Your task to perform on an android device: Open the phone app and click the voicemail tab. Image 0: 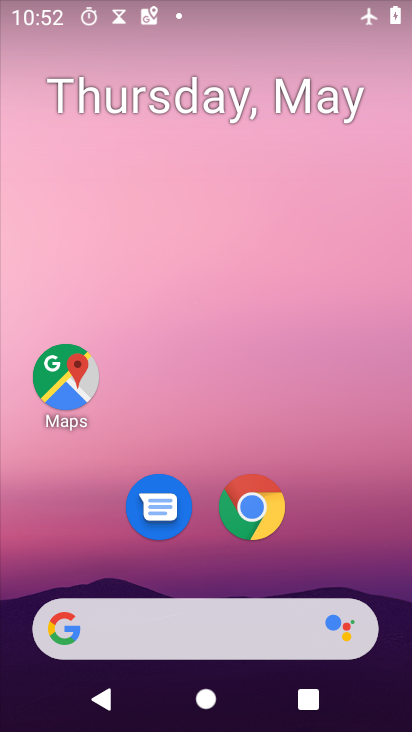
Step 0: drag from (350, 524) to (243, 46)
Your task to perform on an android device: Open the phone app and click the voicemail tab. Image 1: 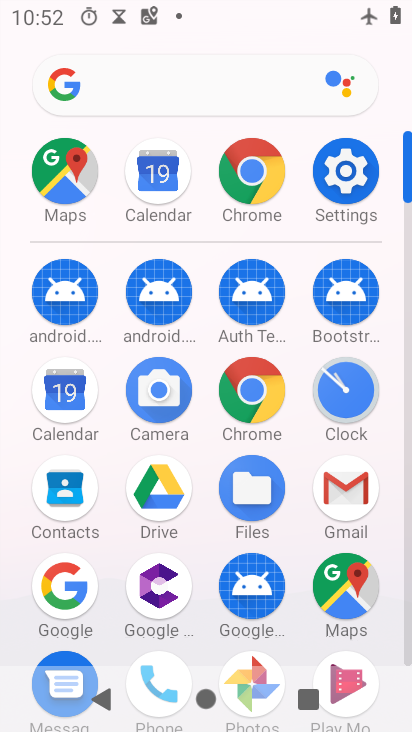
Step 1: drag from (4, 531) to (12, 197)
Your task to perform on an android device: Open the phone app and click the voicemail tab. Image 2: 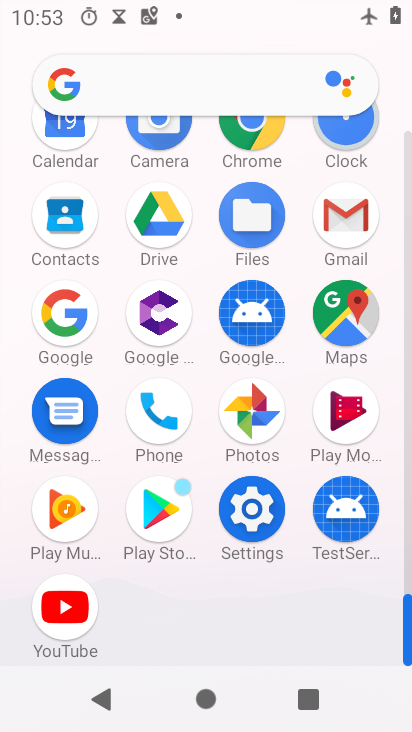
Step 2: click (152, 418)
Your task to perform on an android device: Open the phone app and click the voicemail tab. Image 3: 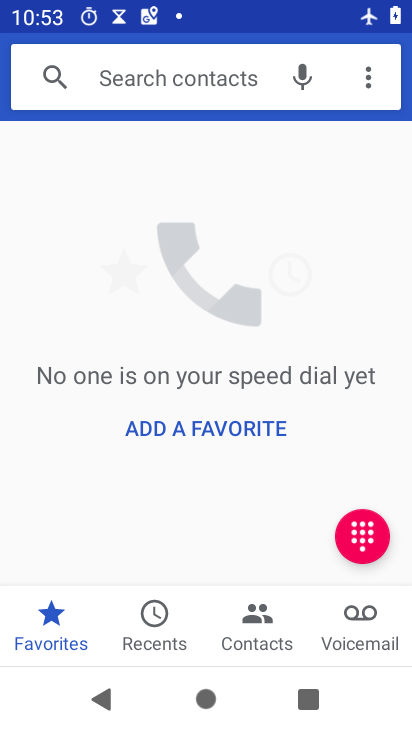
Step 3: click (349, 634)
Your task to perform on an android device: Open the phone app and click the voicemail tab. Image 4: 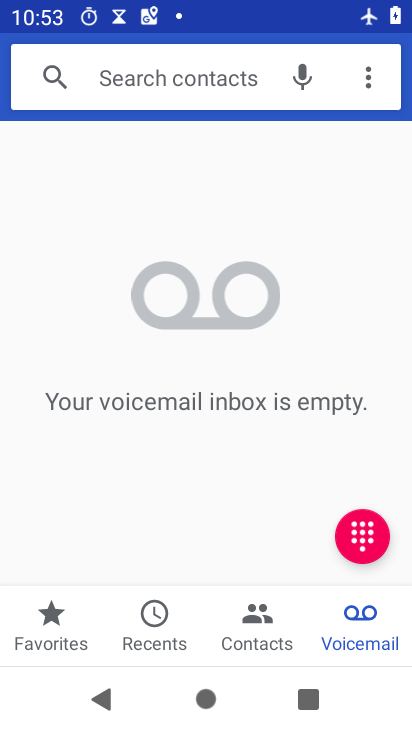
Step 4: task complete